Your task to perform on an android device: Go to Yahoo.com Image 0: 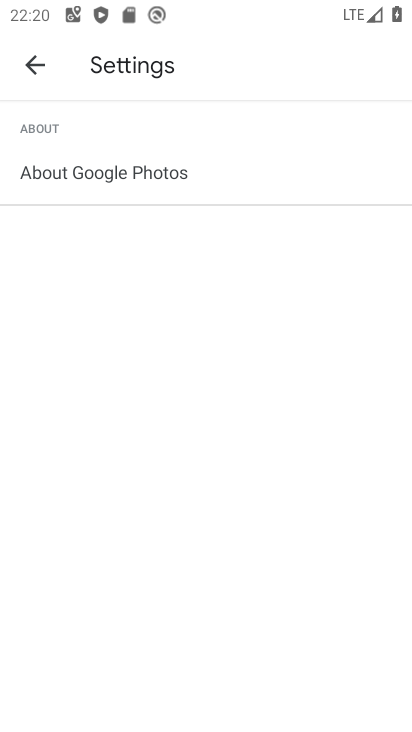
Step 0: press home button
Your task to perform on an android device: Go to Yahoo.com Image 1: 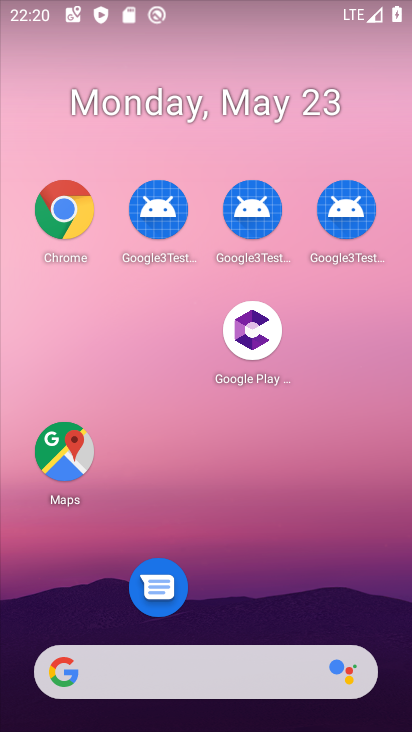
Step 1: click (58, 208)
Your task to perform on an android device: Go to Yahoo.com Image 2: 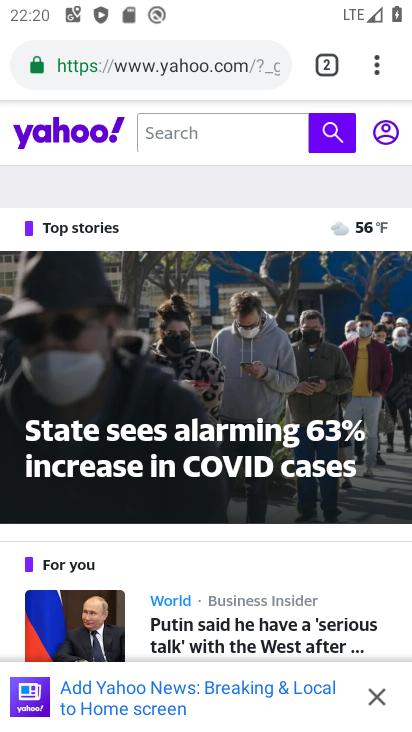
Step 2: task complete